Your task to perform on an android device: turn off sleep mode Image 0: 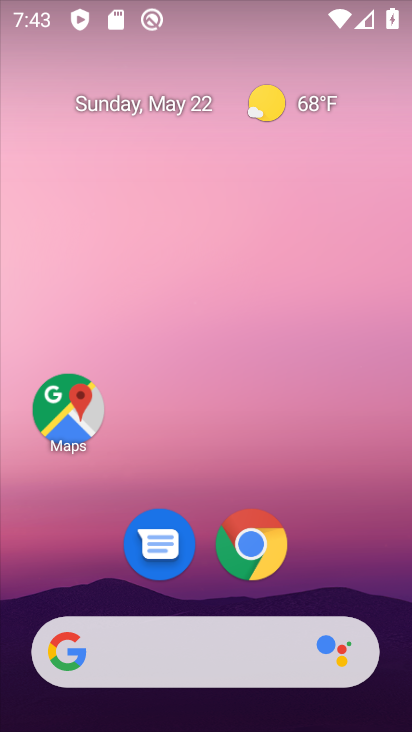
Step 0: drag from (395, 693) to (390, 171)
Your task to perform on an android device: turn off sleep mode Image 1: 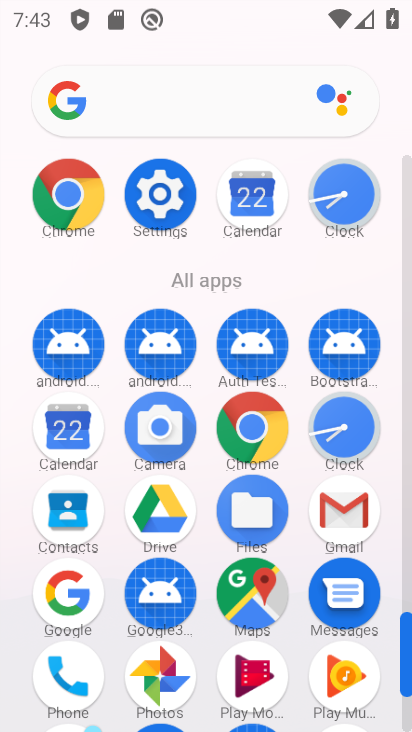
Step 1: click (152, 184)
Your task to perform on an android device: turn off sleep mode Image 2: 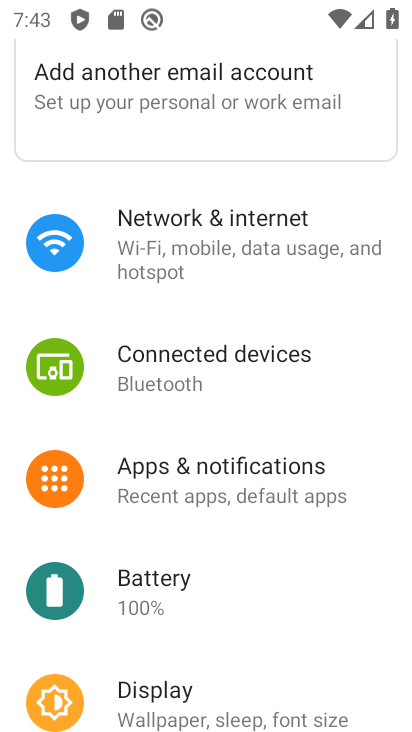
Step 2: click (169, 708)
Your task to perform on an android device: turn off sleep mode Image 3: 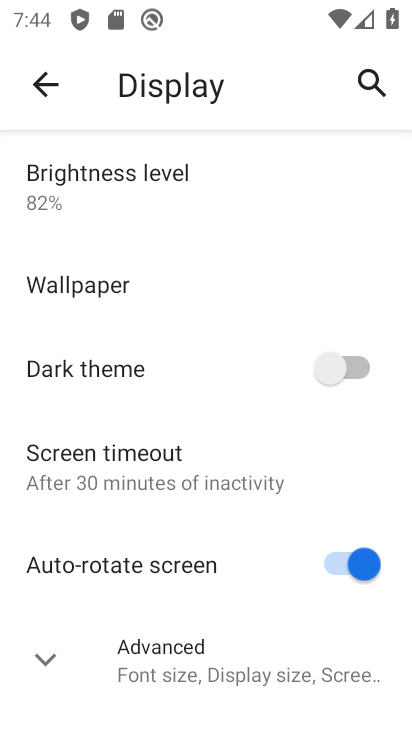
Step 3: click (120, 465)
Your task to perform on an android device: turn off sleep mode Image 4: 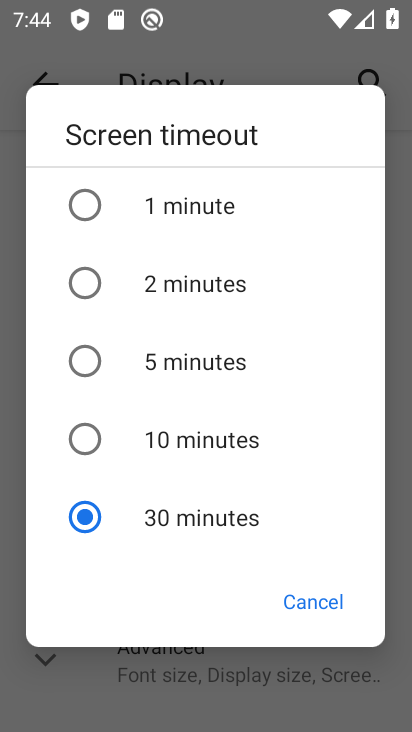
Step 4: task complete